Your task to perform on an android device: Open Google Chrome and click the shortcut for Amazon.com Image 0: 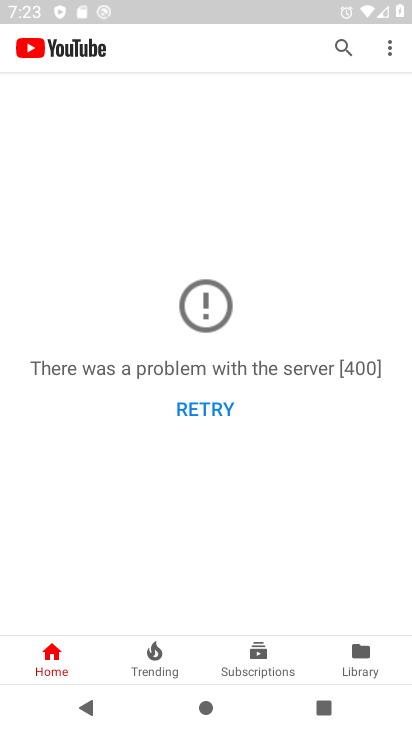
Step 0: press home button
Your task to perform on an android device: Open Google Chrome and click the shortcut for Amazon.com Image 1: 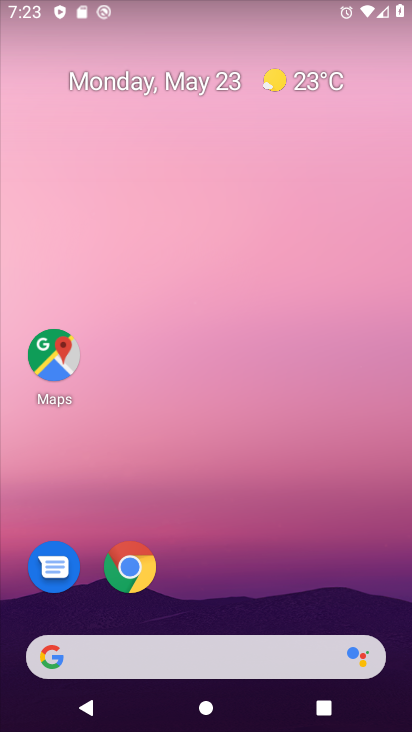
Step 1: drag from (224, 575) to (258, 319)
Your task to perform on an android device: Open Google Chrome and click the shortcut for Amazon.com Image 2: 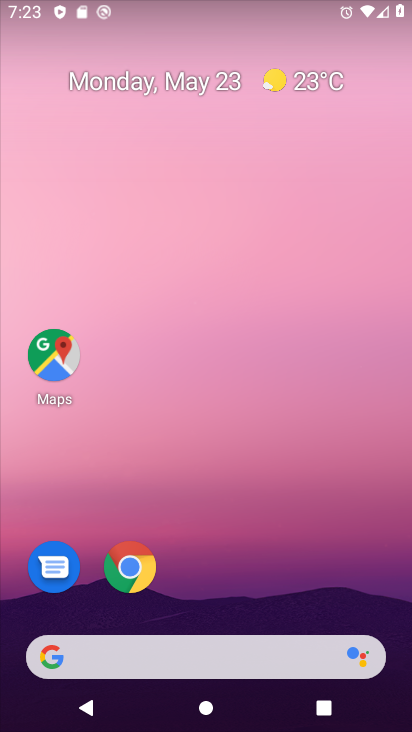
Step 2: click (140, 563)
Your task to perform on an android device: Open Google Chrome and click the shortcut for Amazon.com Image 3: 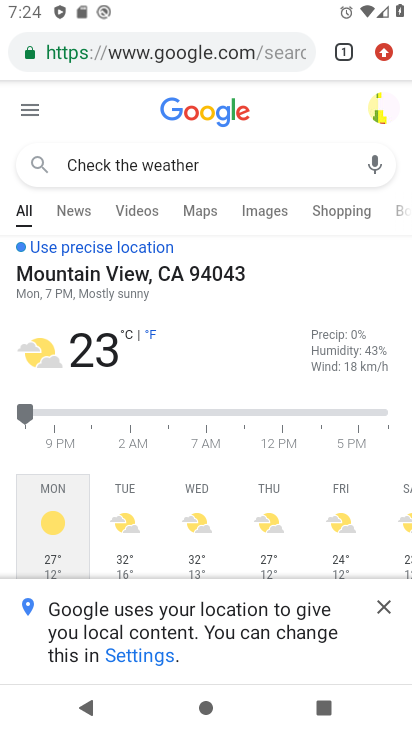
Step 3: click (365, 54)
Your task to perform on an android device: Open Google Chrome and click the shortcut for Amazon.com Image 4: 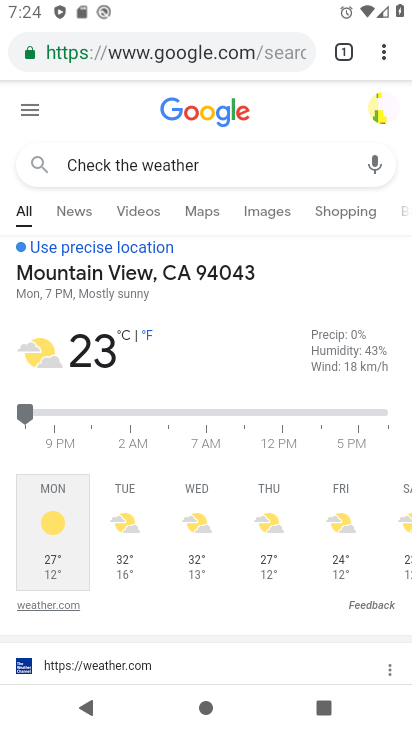
Step 4: click (381, 49)
Your task to perform on an android device: Open Google Chrome and click the shortcut for Amazon.com Image 5: 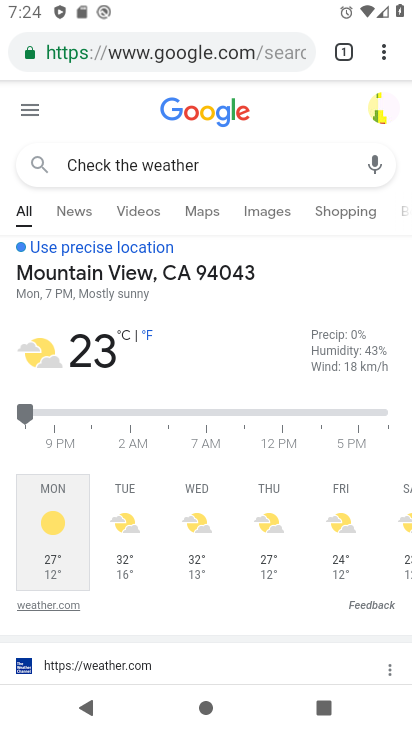
Step 5: click (379, 51)
Your task to perform on an android device: Open Google Chrome and click the shortcut for Amazon.com Image 6: 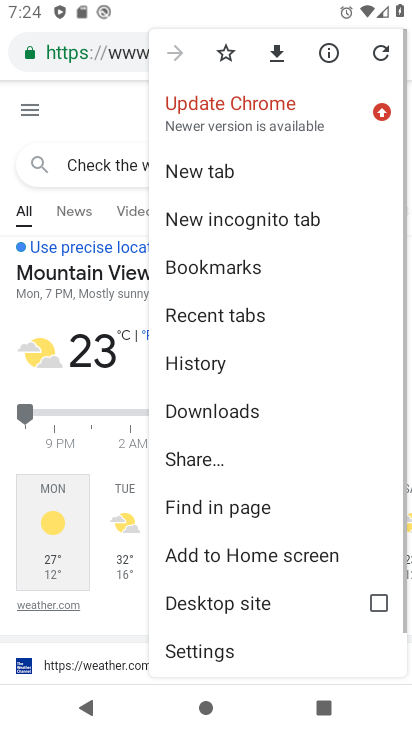
Step 6: click (223, 167)
Your task to perform on an android device: Open Google Chrome and click the shortcut for Amazon.com Image 7: 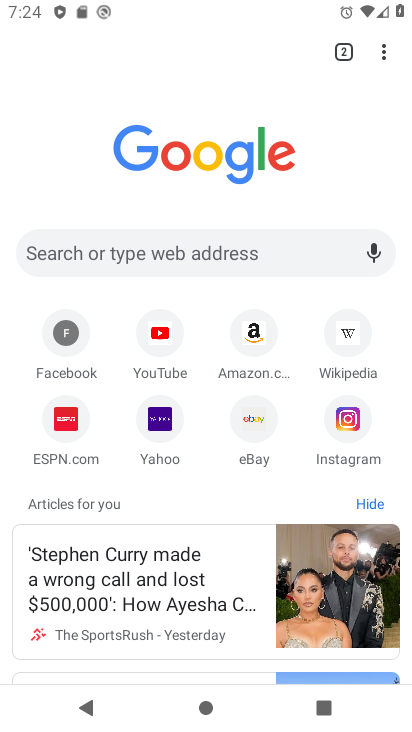
Step 7: click (241, 338)
Your task to perform on an android device: Open Google Chrome and click the shortcut for Amazon.com Image 8: 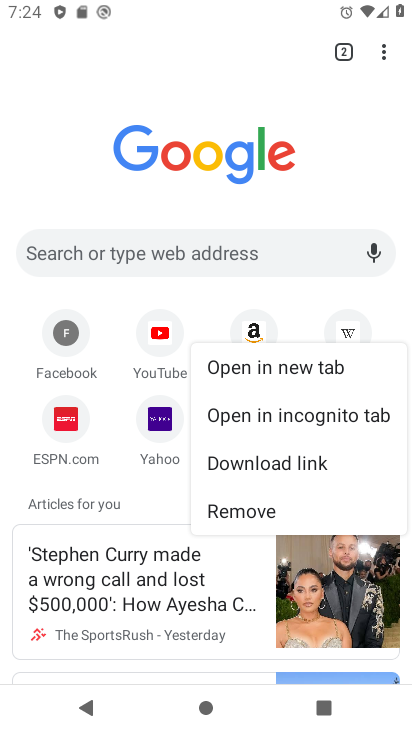
Step 8: click (263, 373)
Your task to perform on an android device: Open Google Chrome and click the shortcut for Amazon.com Image 9: 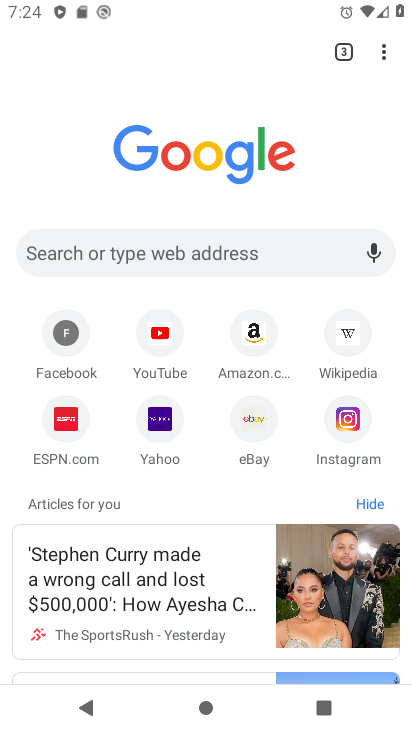
Step 9: click (252, 334)
Your task to perform on an android device: Open Google Chrome and click the shortcut for Amazon.com Image 10: 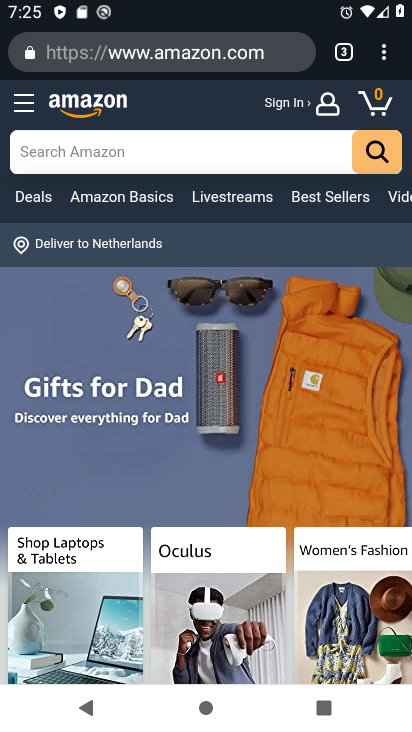
Step 10: task complete